Your task to perform on an android device: add a label to a message in the gmail app Image 0: 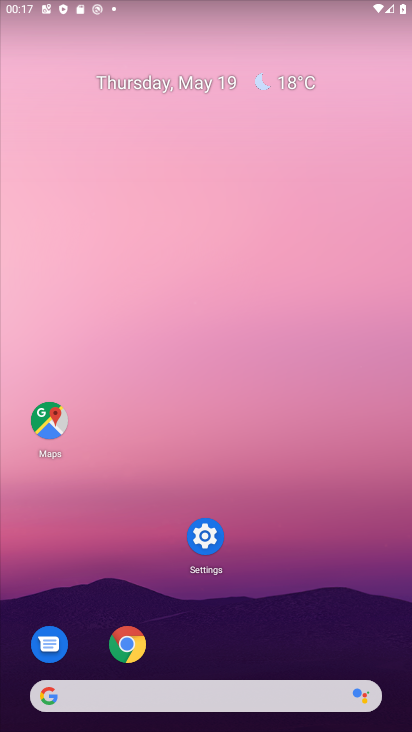
Step 0: drag from (297, 639) to (305, 222)
Your task to perform on an android device: add a label to a message in the gmail app Image 1: 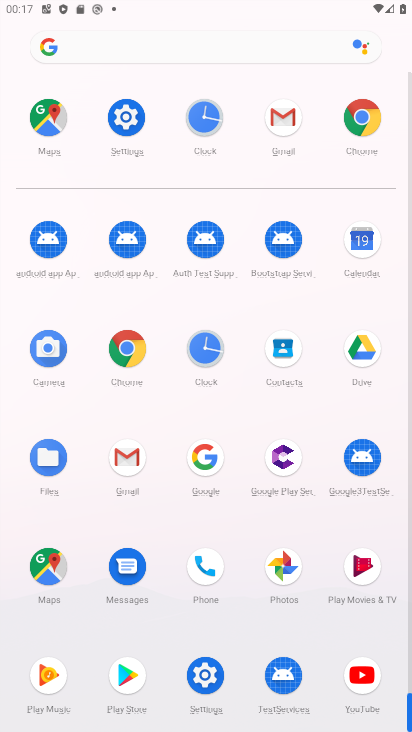
Step 1: click (285, 110)
Your task to perform on an android device: add a label to a message in the gmail app Image 2: 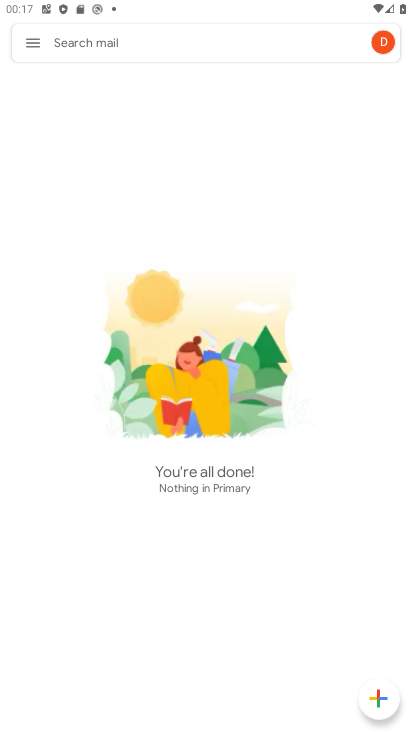
Step 2: click (41, 35)
Your task to perform on an android device: add a label to a message in the gmail app Image 3: 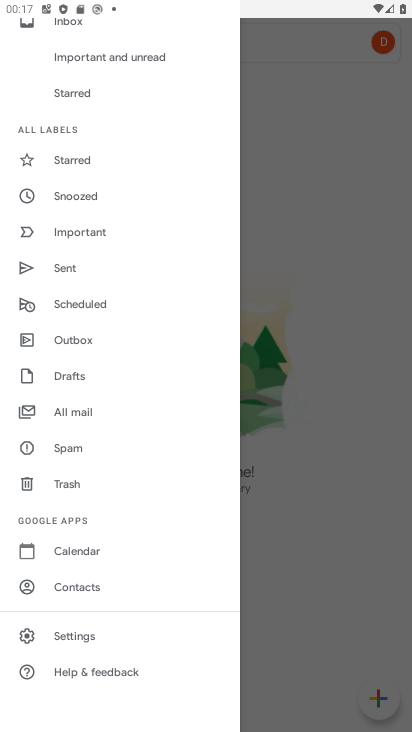
Step 3: drag from (118, 174) to (69, 630)
Your task to perform on an android device: add a label to a message in the gmail app Image 4: 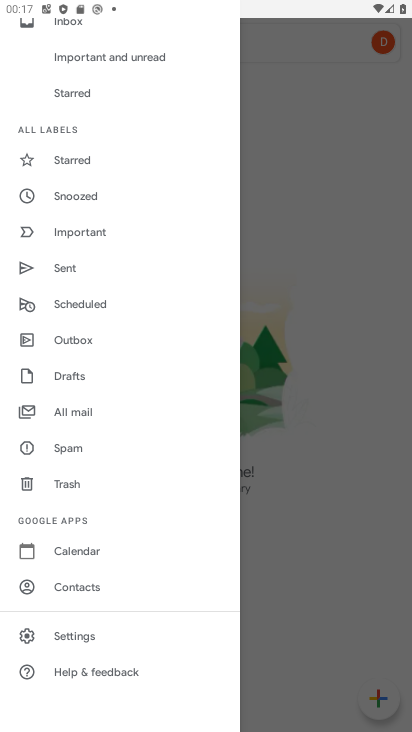
Step 4: drag from (39, 191) to (75, 531)
Your task to perform on an android device: add a label to a message in the gmail app Image 5: 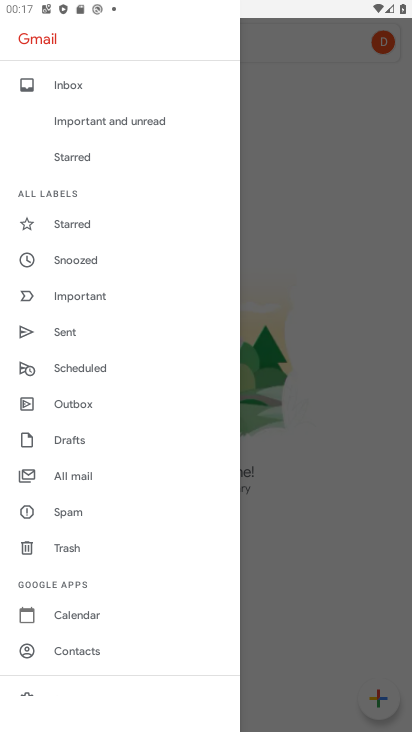
Step 5: click (74, 473)
Your task to perform on an android device: add a label to a message in the gmail app Image 6: 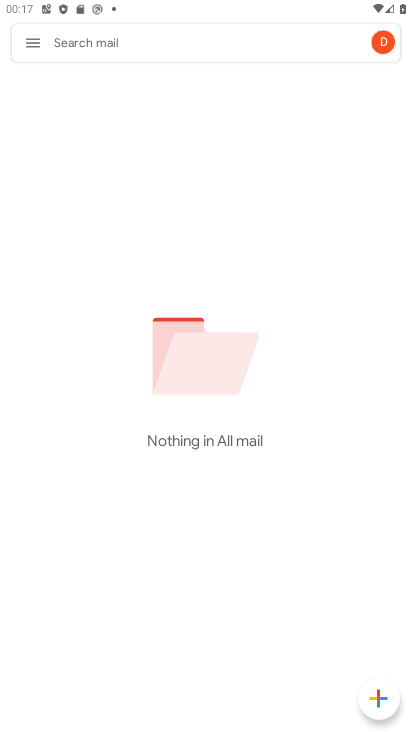
Step 6: task complete